Your task to perform on an android device: Search for sushi restaurants on Maps Image 0: 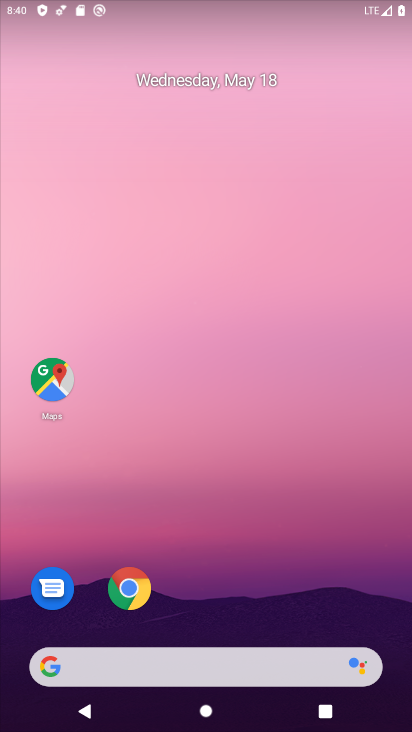
Step 0: click (49, 383)
Your task to perform on an android device: Search for sushi restaurants on Maps Image 1: 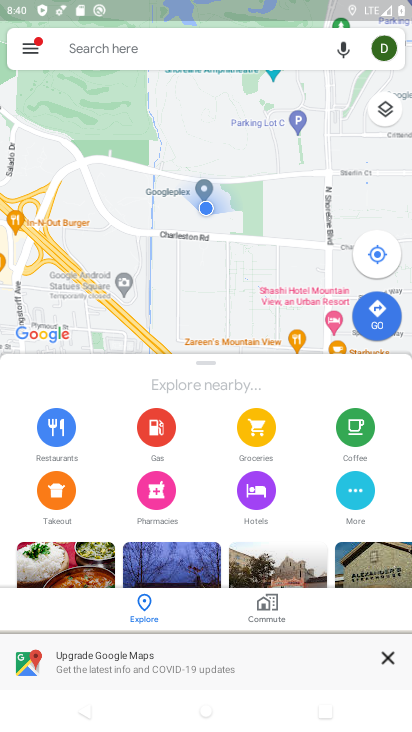
Step 1: click (83, 46)
Your task to perform on an android device: Search for sushi restaurants on Maps Image 2: 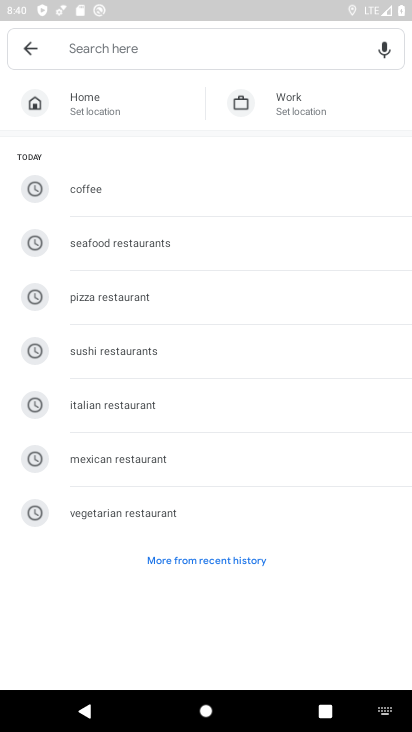
Step 2: type "sushi restaurant"
Your task to perform on an android device: Search for sushi restaurants on Maps Image 3: 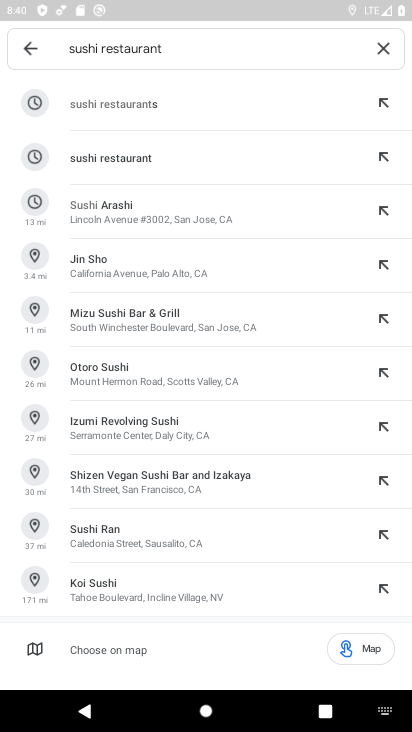
Step 3: click (139, 103)
Your task to perform on an android device: Search for sushi restaurants on Maps Image 4: 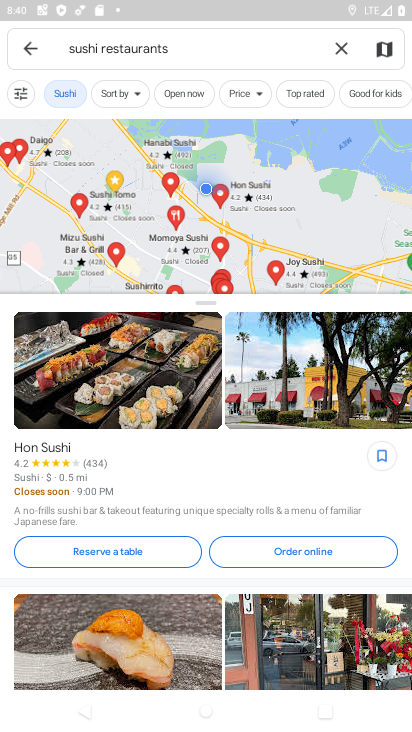
Step 4: task complete